Your task to perform on an android device: Open Chrome and go to settings Image 0: 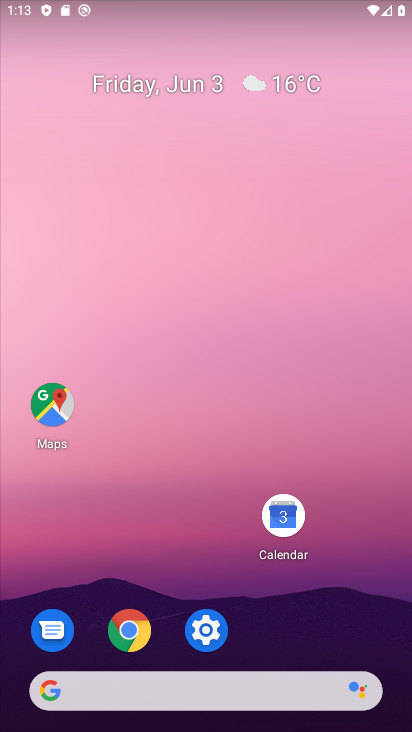
Step 0: drag from (262, 704) to (316, 120)
Your task to perform on an android device: Open Chrome and go to settings Image 1: 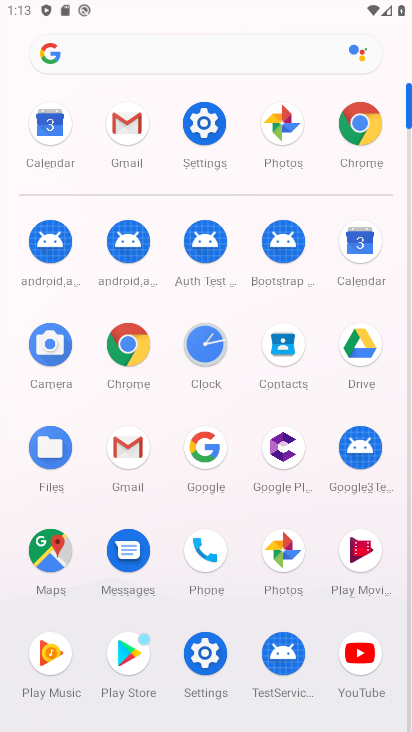
Step 1: click (345, 133)
Your task to perform on an android device: Open Chrome and go to settings Image 2: 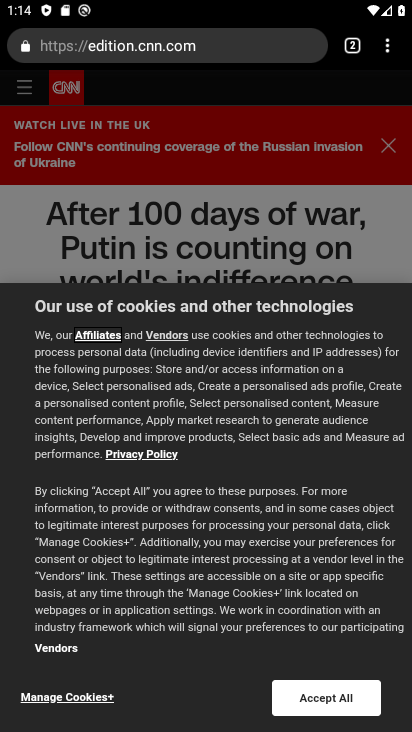
Step 2: click (388, 65)
Your task to perform on an android device: Open Chrome and go to settings Image 3: 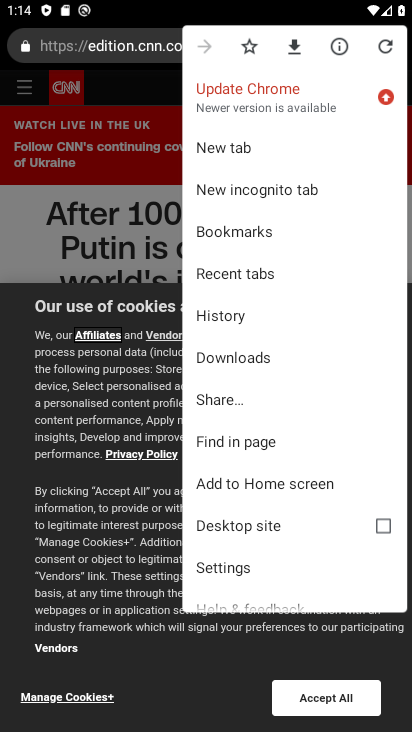
Step 3: click (224, 560)
Your task to perform on an android device: Open Chrome and go to settings Image 4: 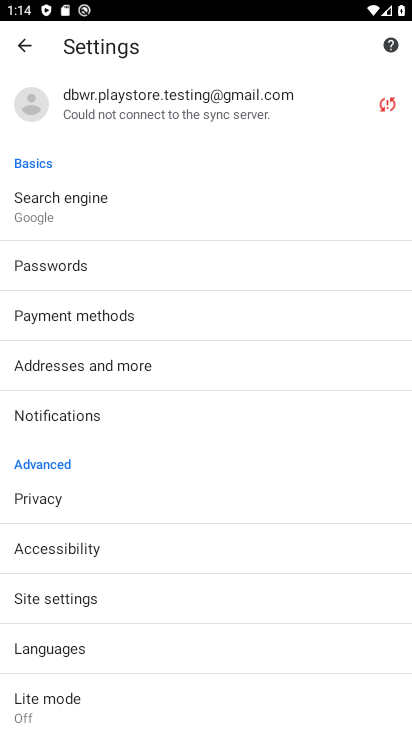
Step 4: task complete